Your task to perform on an android device: Open calendar and show me the second week of next month Image 0: 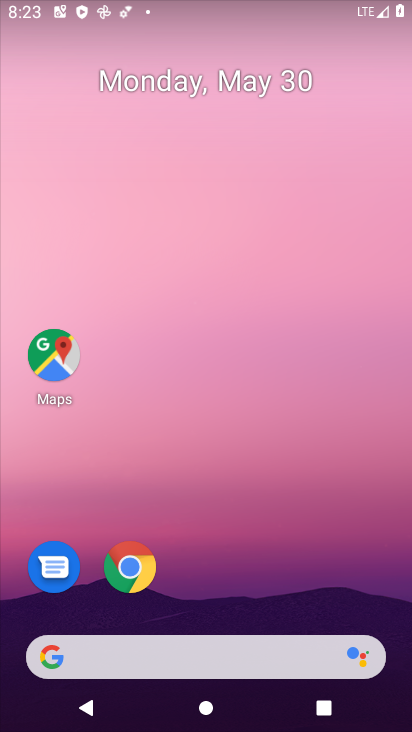
Step 0: drag from (290, 601) to (269, 191)
Your task to perform on an android device: Open calendar and show me the second week of next month Image 1: 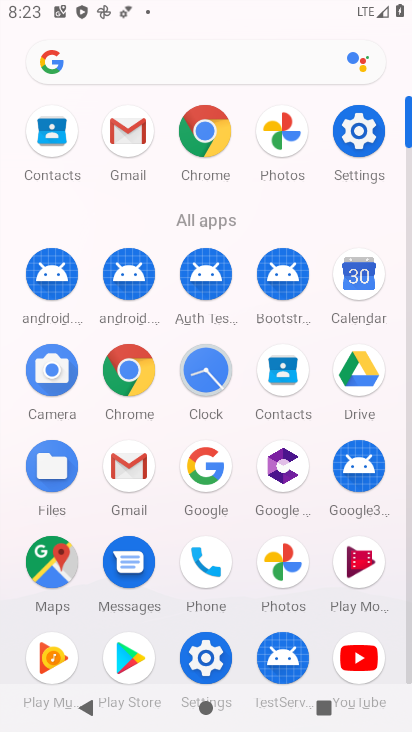
Step 1: click (369, 290)
Your task to perform on an android device: Open calendar and show me the second week of next month Image 2: 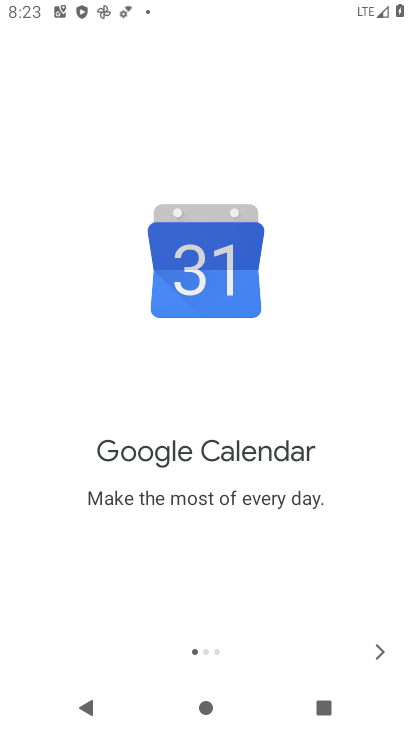
Step 2: click (385, 664)
Your task to perform on an android device: Open calendar and show me the second week of next month Image 3: 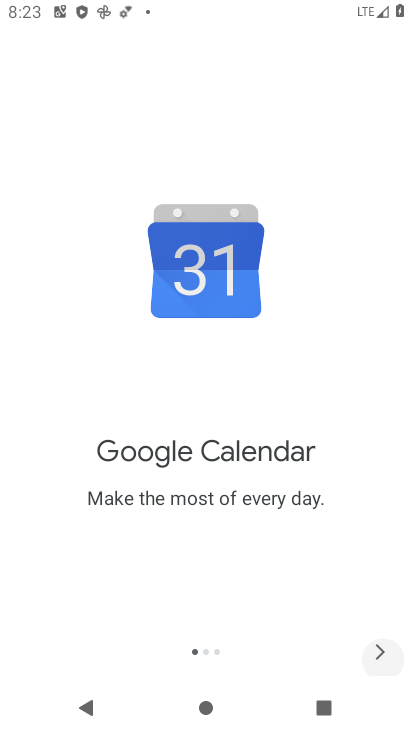
Step 3: click (385, 664)
Your task to perform on an android device: Open calendar and show me the second week of next month Image 4: 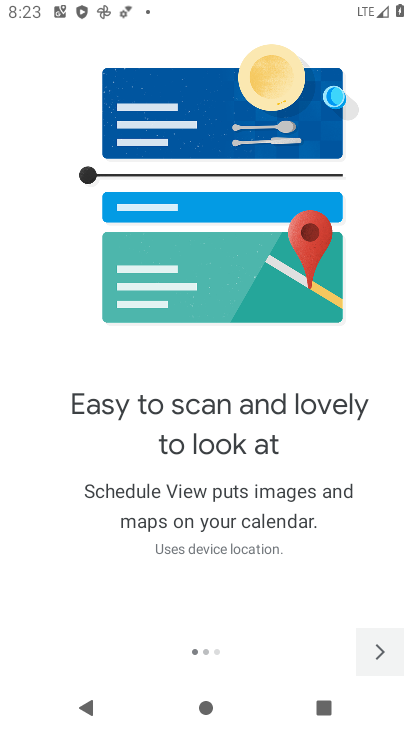
Step 4: click (385, 664)
Your task to perform on an android device: Open calendar and show me the second week of next month Image 5: 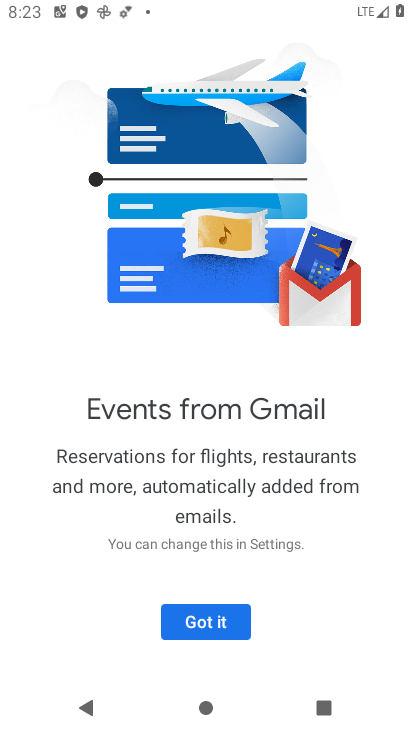
Step 5: click (385, 664)
Your task to perform on an android device: Open calendar and show me the second week of next month Image 6: 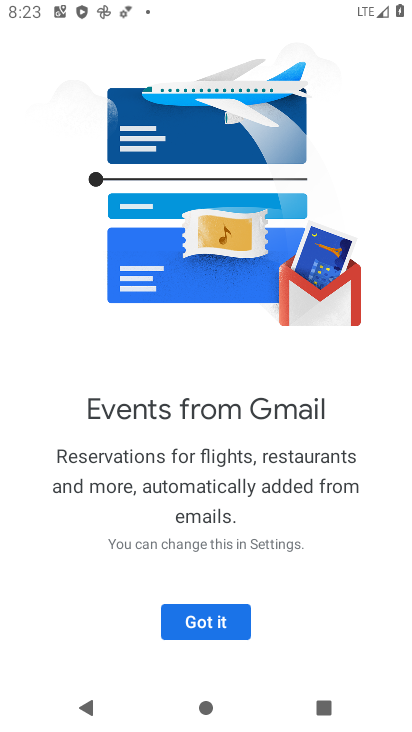
Step 6: click (224, 622)
Your task to perform on an android device: Open calendar and show me the second week of next month Image 7: 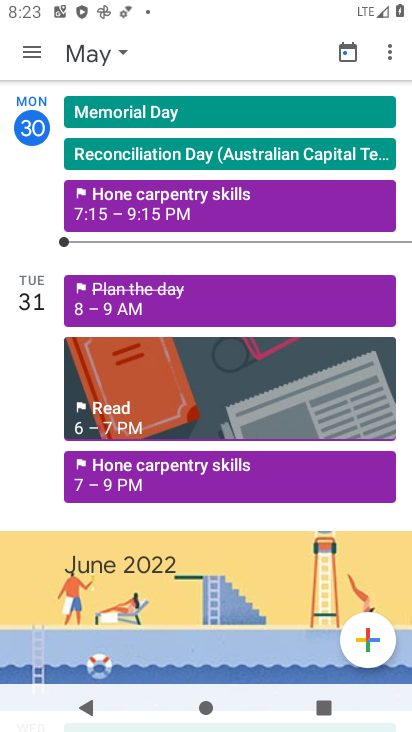
Step 7: task complete